Your task to perform on an android device: set default search engine in the chrome app Image 0: 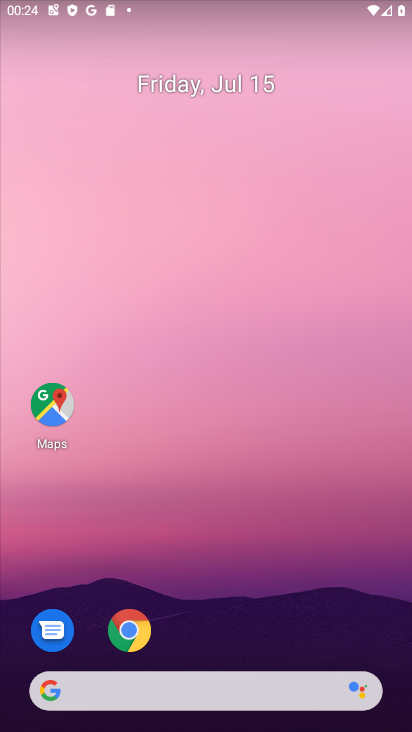
Step 0: click (119, 644)
Your task to perform on an android device: set default search engine in the chrome app Image 1: 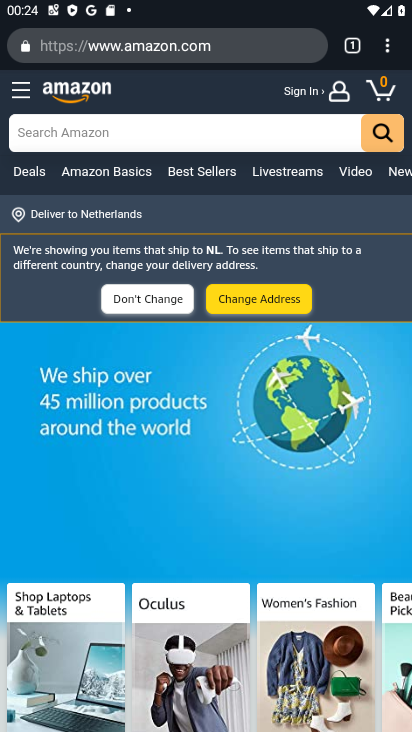
Step 1: click (382, 38)
Your task to perform on an android device: set default search engine in the chrome app Image 2: 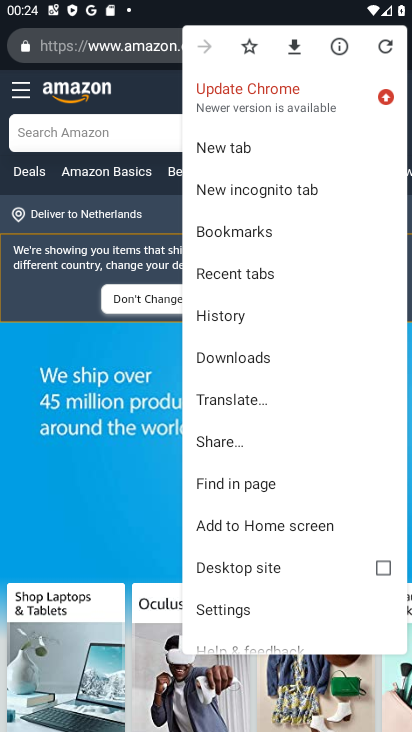
Step 2: click (234, 602)
Your task to perform on an android device: set default search engine in the chrome app Image 3: 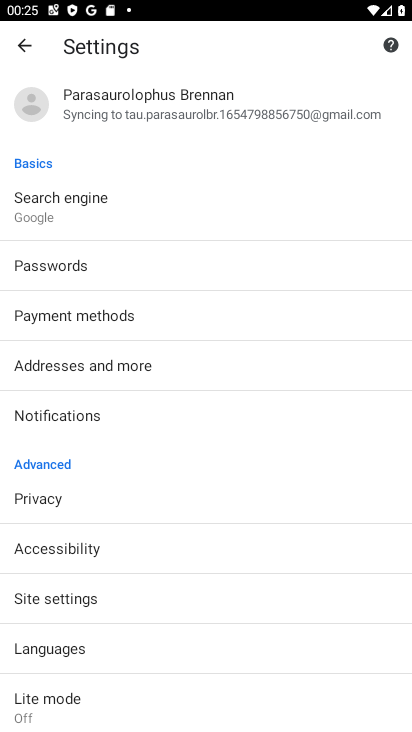
Step 3: click (129, 208)
Your task to perform on an android device: set default search engine in the chrome app Image 4: 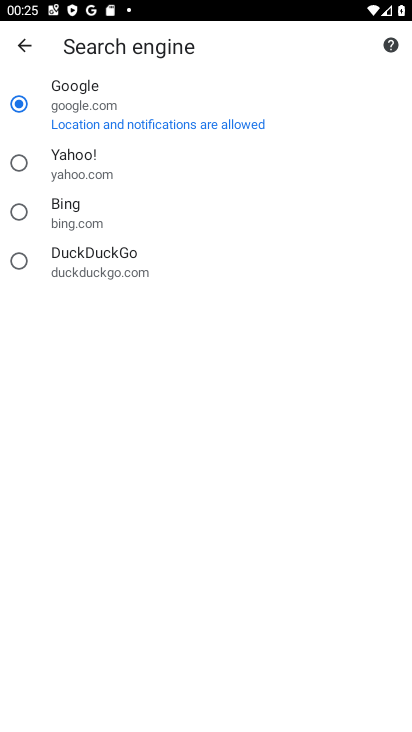
Step 4: click (72, 248)
Your task to perform on an android device: set default search engine in the chrome app Image 5: 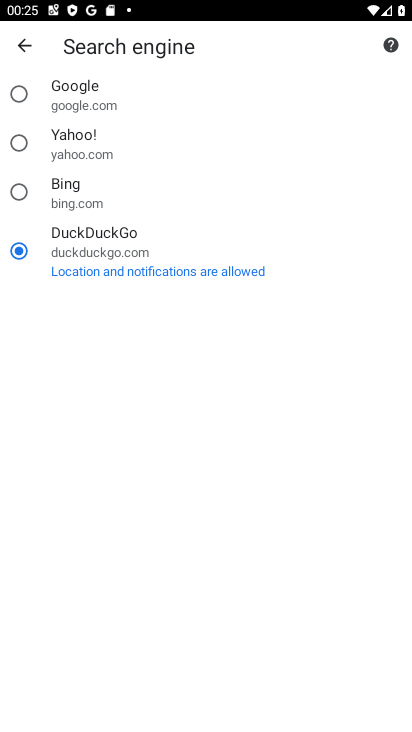
Step 5: task complete